Your task to perform on an android device: toggle data saver in the chrome app Image 0: 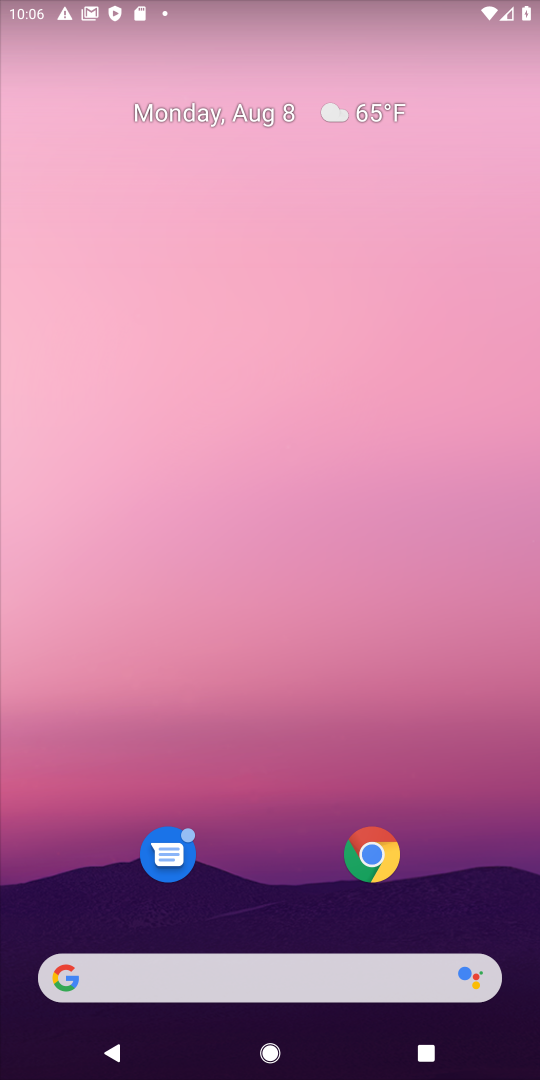
Step 0: drag from (275, 922) to (284, 296)
Your task to perform on an android device: toggle data saver in the chrome app Image 1: 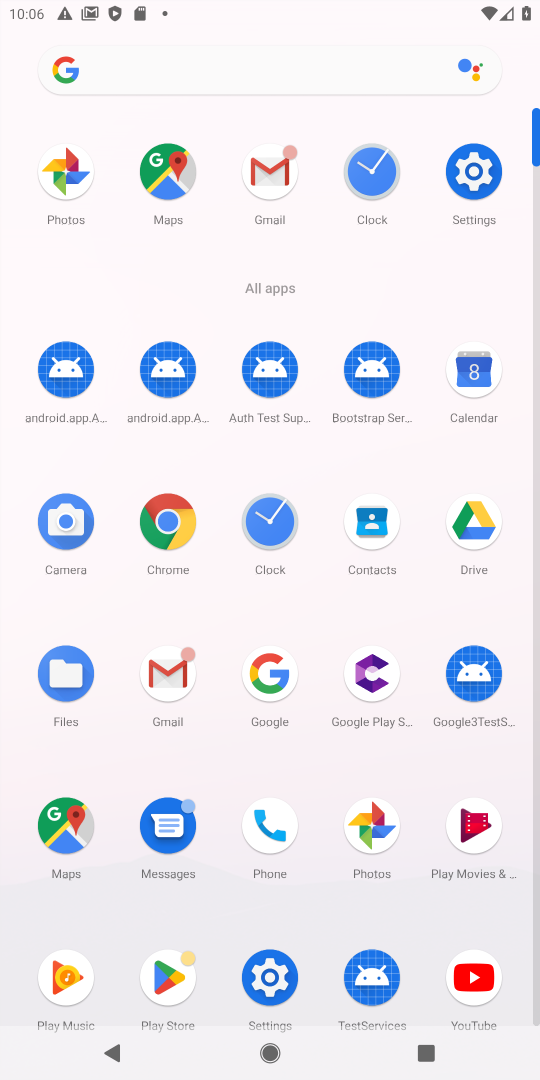
Step 1: click (167, 546)
Your task to perform on an android device: toggle data saver in the chrome app Image 2: 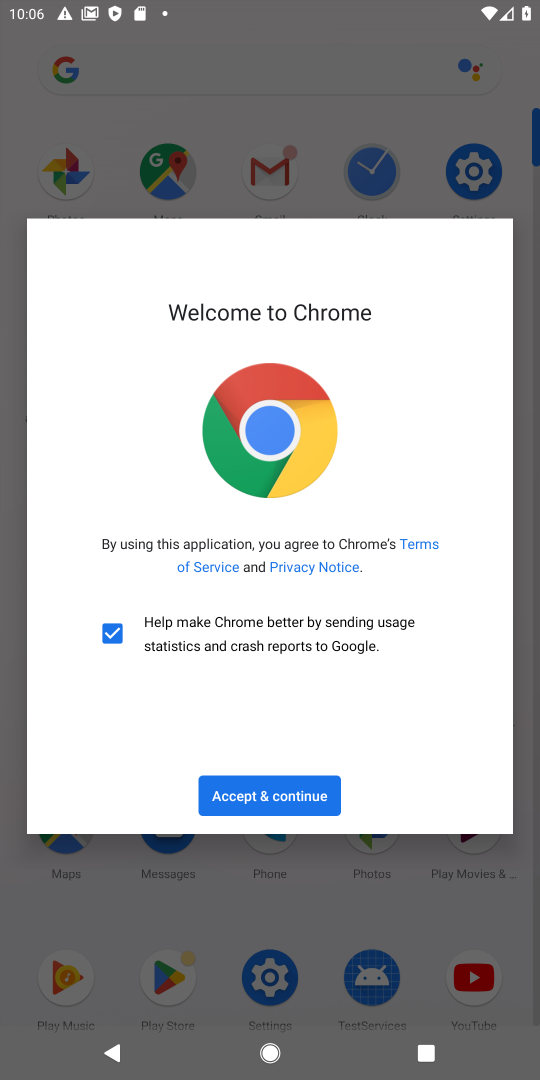
Step 2: click (282, 801)
Your task to perform on an android device: toggle data saver in the chrome app Image 3: 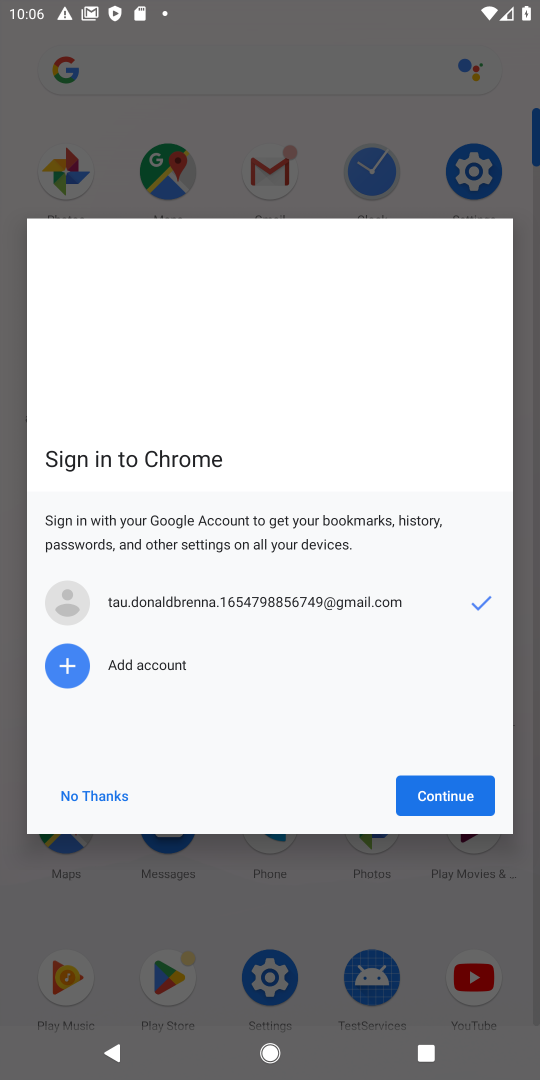
Step 3: click (442, 806)
Your task to perform on an android device: toggle data saver in the chrome app Image 4: 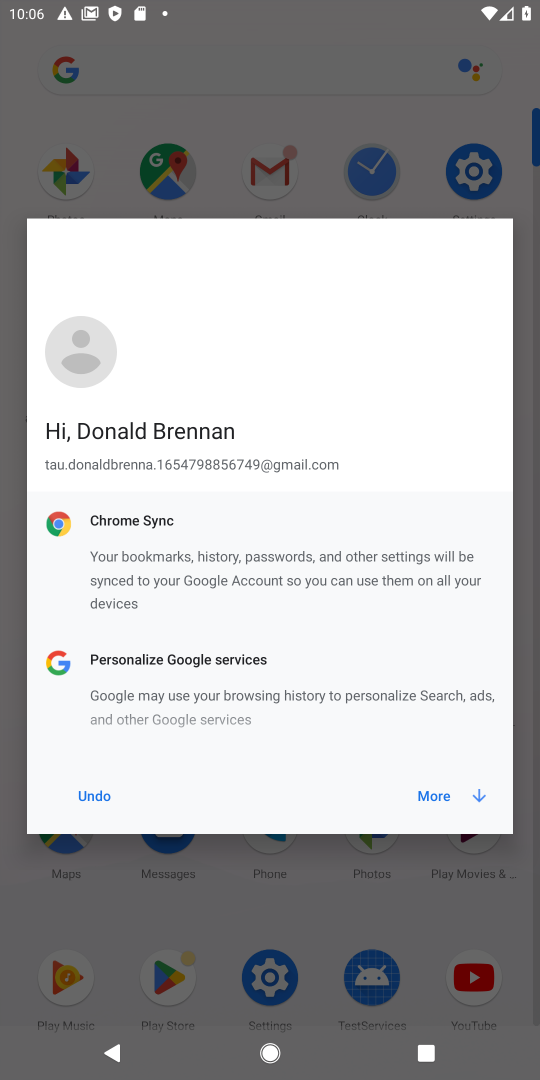
Step 4: click (442, 806)
Your task to perform on an android device: toggle data saver in the chrome app Image 5: 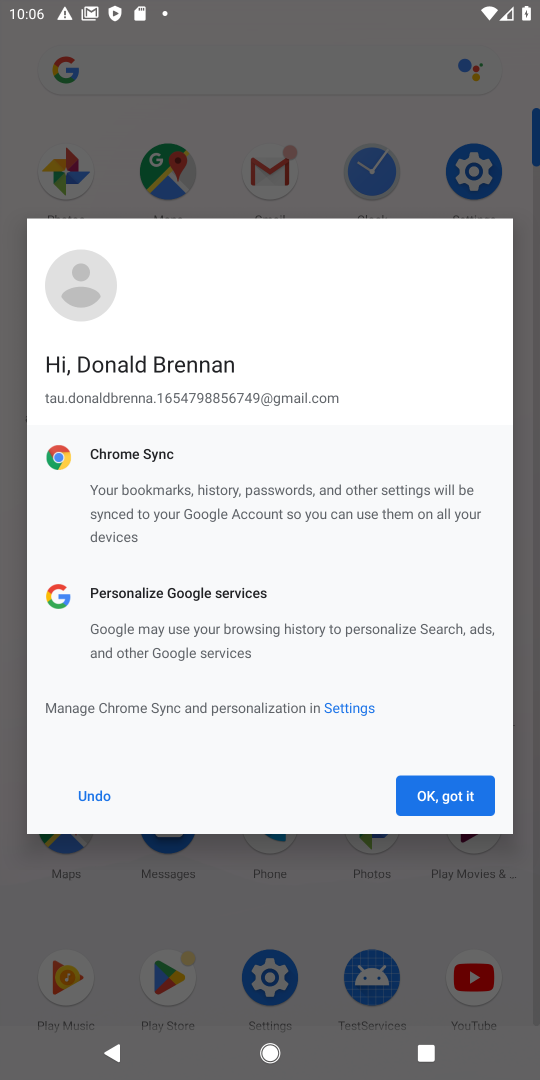
Step 5: click (442, 806)
Your task to perform on an android device: toggle data saver in the chrome app Image 6: 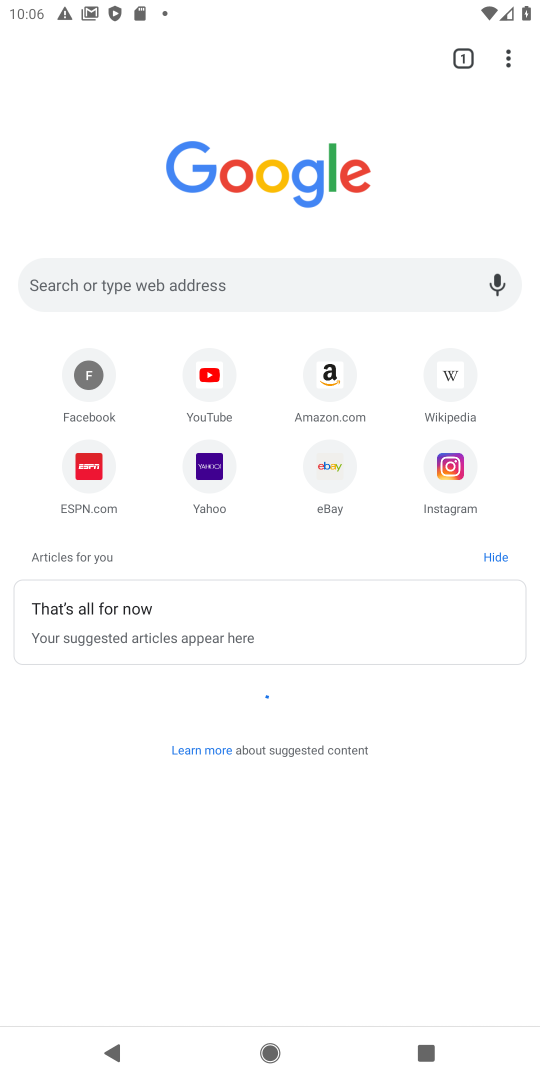
Step 6: click (518, 62)
Your task to perform on an android device: toggle data saver in the chrome app Image 7: 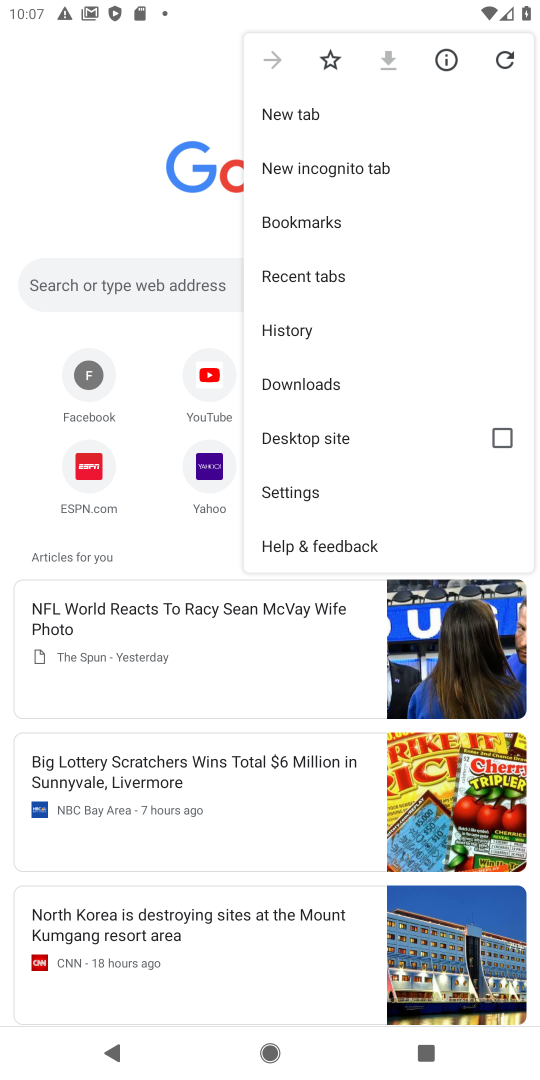
Step 7: click (357, 498)
Your task to perform on an android device: toggle data saver in the chrome app Image 8: 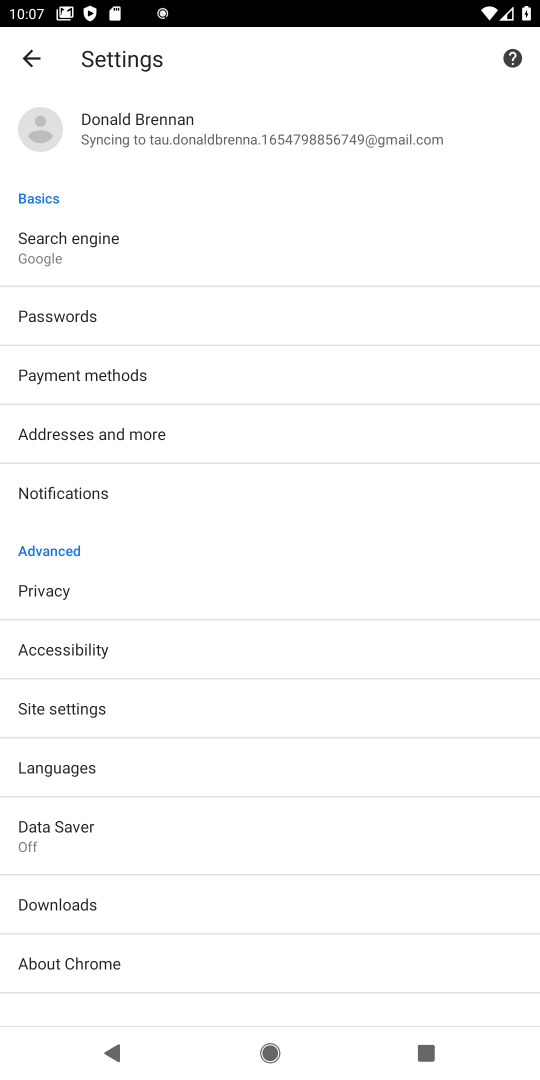
Step 8: click (93, 850)
Your task to perform on an android device: toggle data saver in the chrome app Image 9: 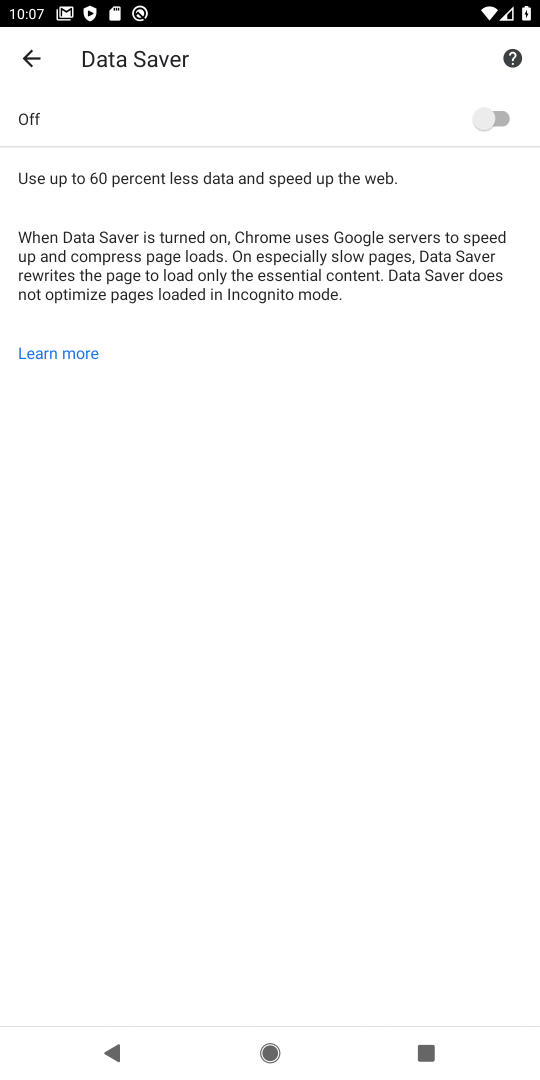
Step 9: click (504, 125)
Your task to perform on an android device: toggle data saver in the chrome app Image 10: 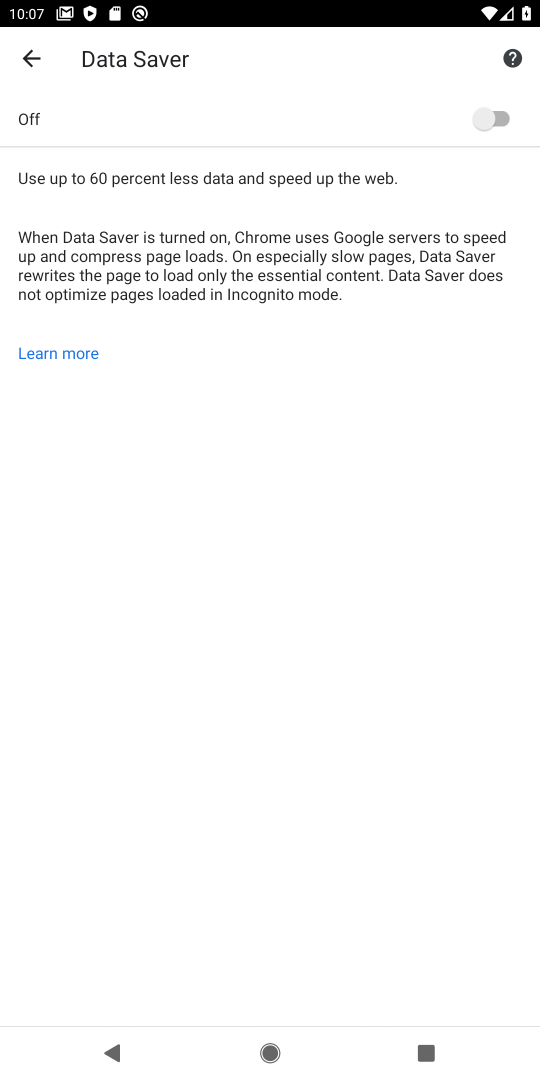
Step 10: click (504, 125)
Your task to perform on an android device: toggle data saver in the chrome app Image 11: 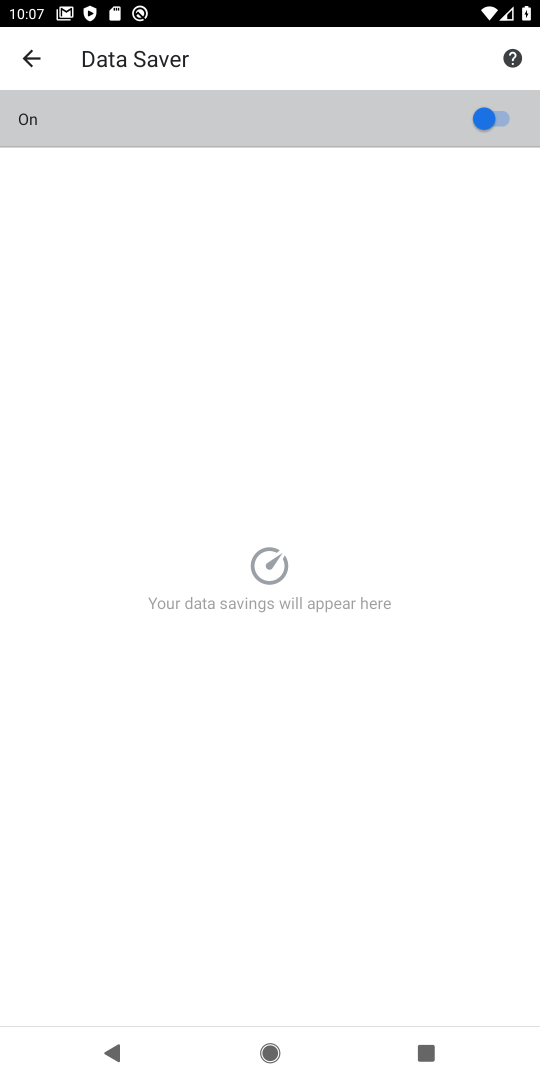
Step 11: click (504, 125)
Your task to perform on an android device: toggle data saver in the chrome app Image 12: 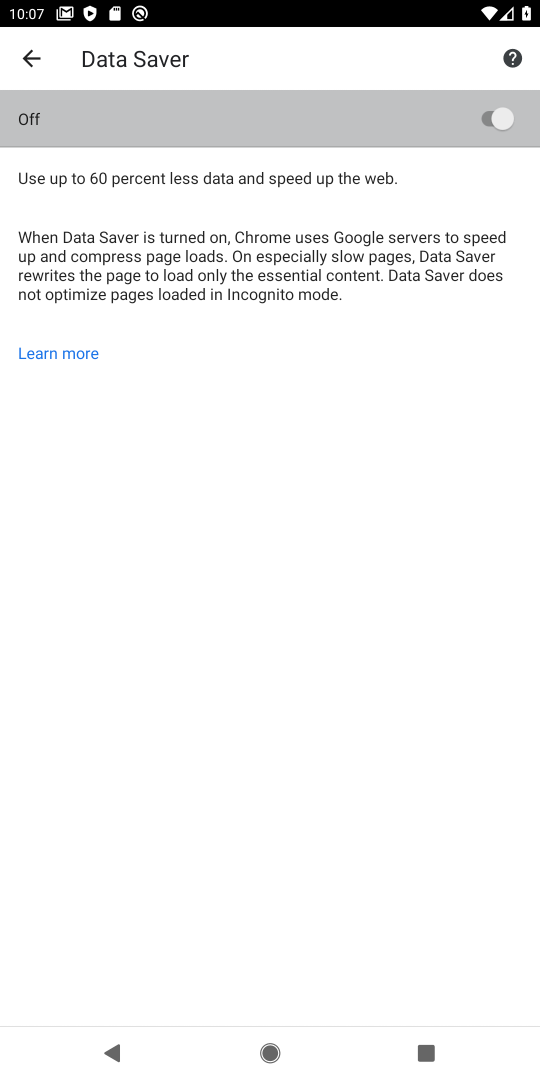
Step 12: click (504, 125)
Your task to perform on an android device: toggle data saver in the chrome app Image 13: 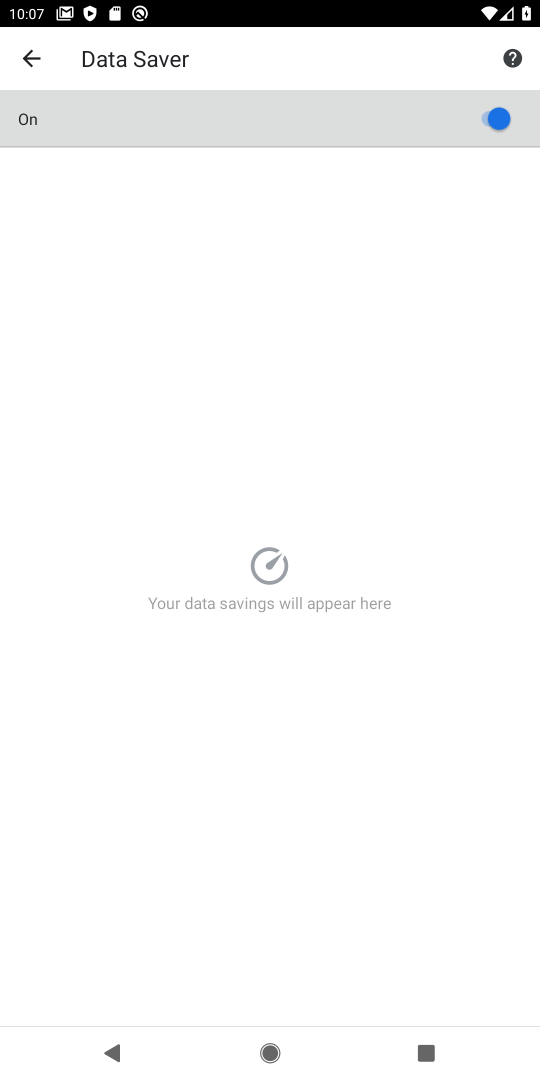
Step 13: click (504, 125)
Your task to perform on an android device: toggle data saver in the chrome app Image 14: 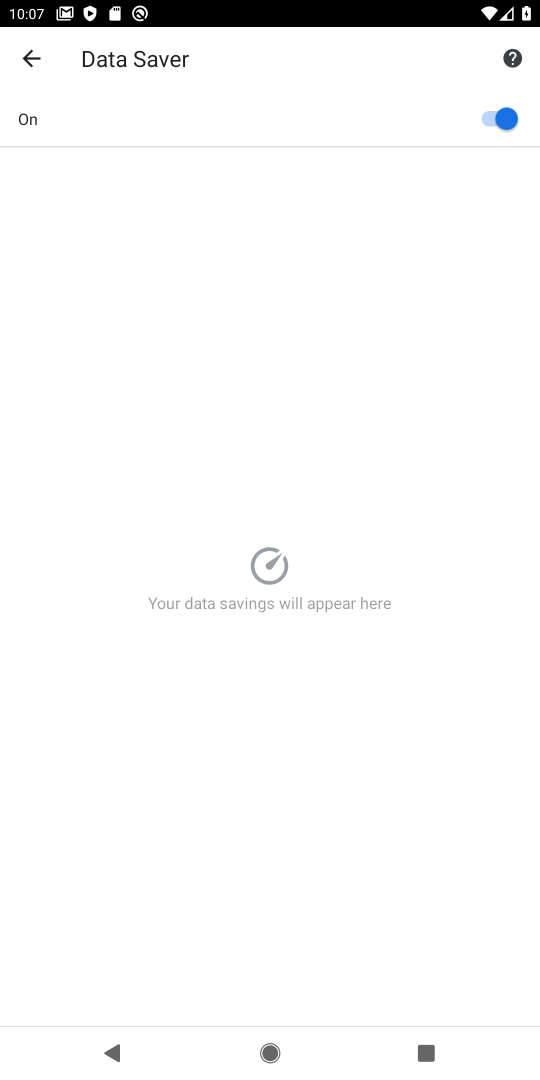
Step 14: task complete